Your task to perform on an android device: uninstall "Instagram" Image 0: 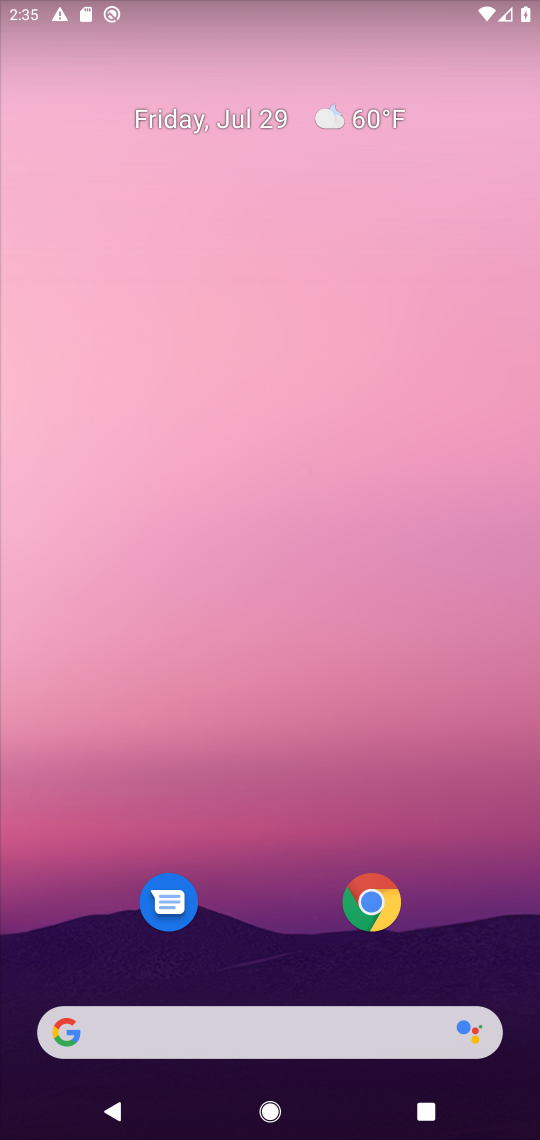
Step 0: drag from (256, 1008) to (256, 116)
Your task to perform on an android device: uninstall "Instagram" Image 1: 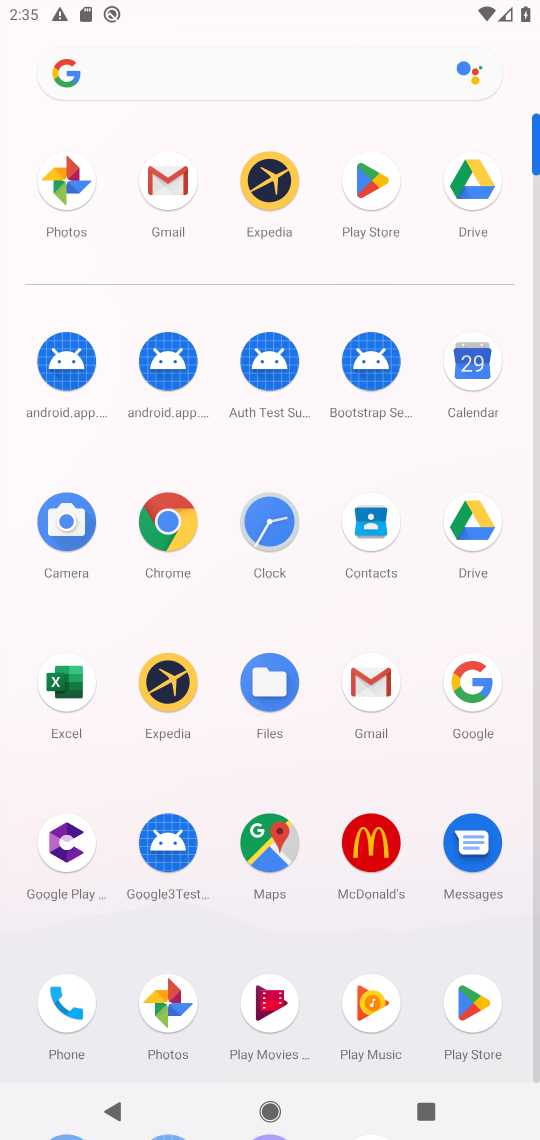
Step 1: click (377, 184)
Your task to perform on an android device: uninstall "Instagram" Image 2: 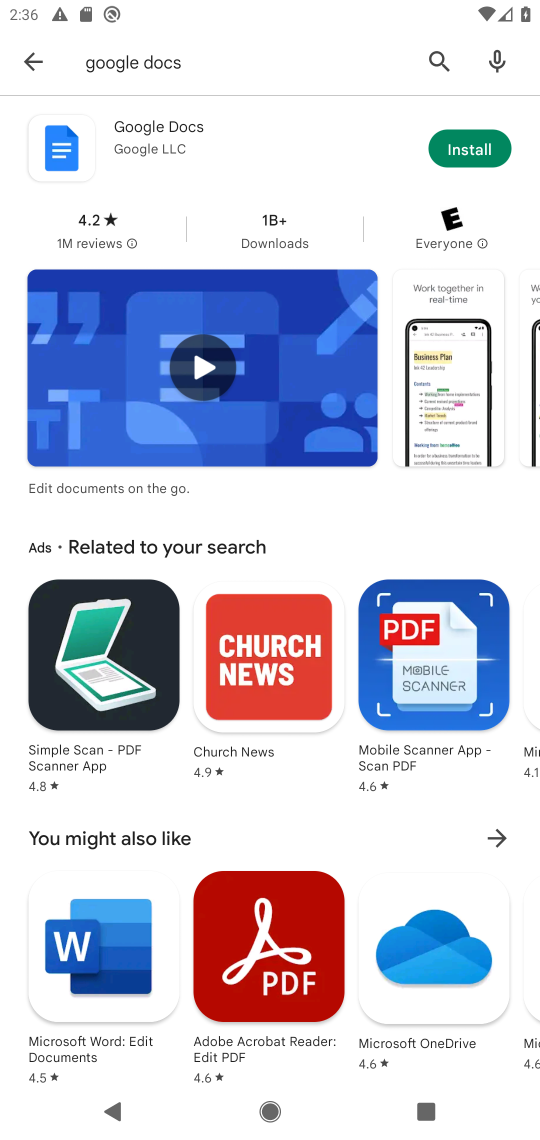
Step 2: click (445, 61)
Your task to perform on an android device: uninstall "Instagram" Image 3: 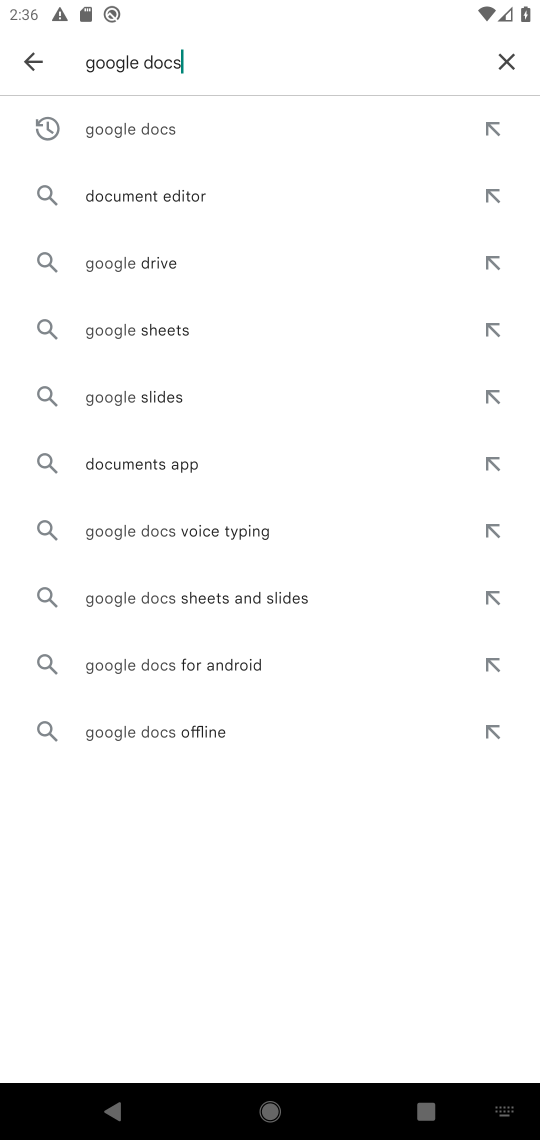
Step 3: click (514, 65)
Your task to perform on an android device: uninstall "Instagram" Image 4: 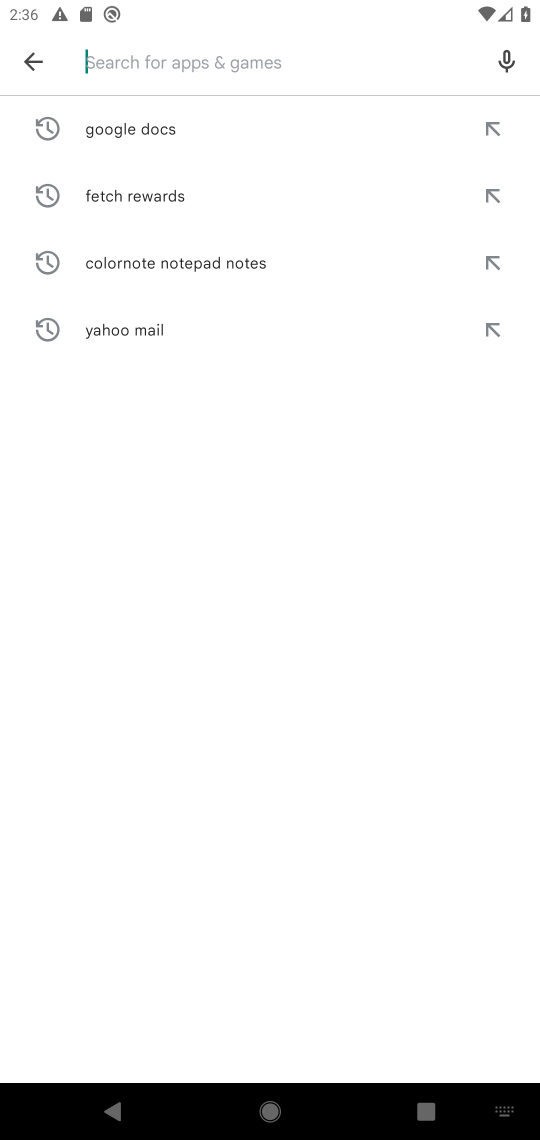
Step 4: type "instagram"
Your task to perform on an android device: uninstall "Instagram" Image 5: 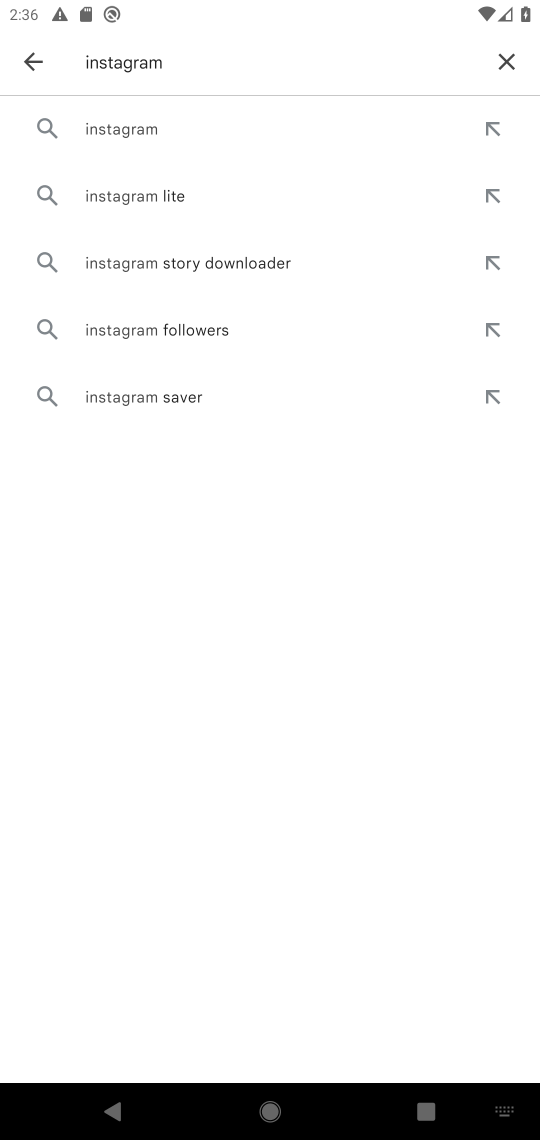
Step 5: click (132, 124)
Your task to perform on an android device: uninstall "Instagram" Image 6: 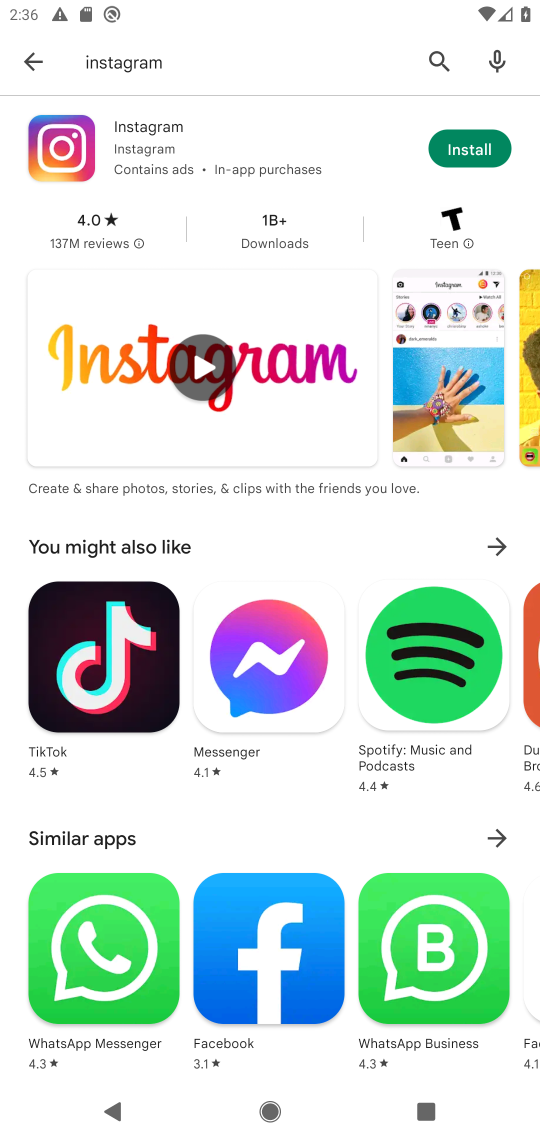
Step 6: task complete